Your task to perform on an android device: Search for good Italian restaurants Image 0: 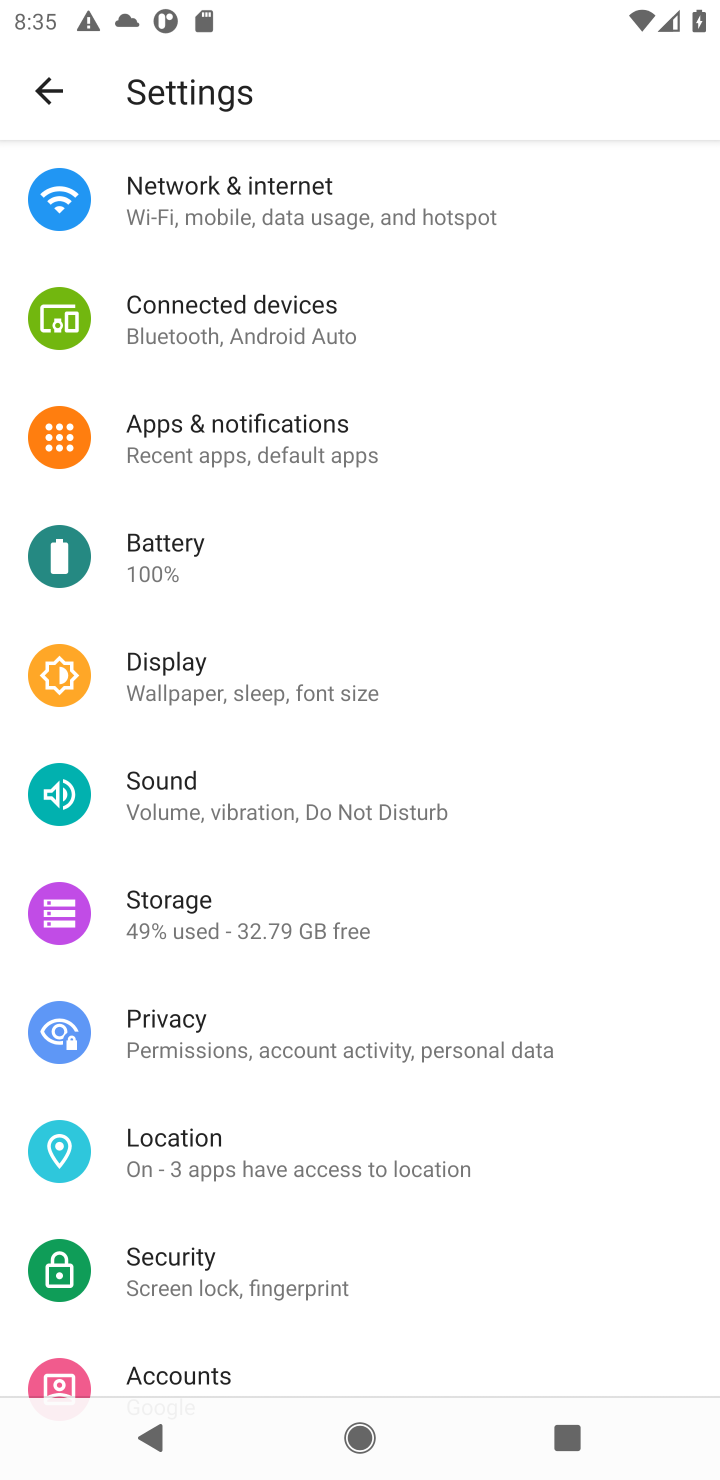
Step 0: press home button
Your task to perform on an android device: Search for good Italian restaurants Image 1: 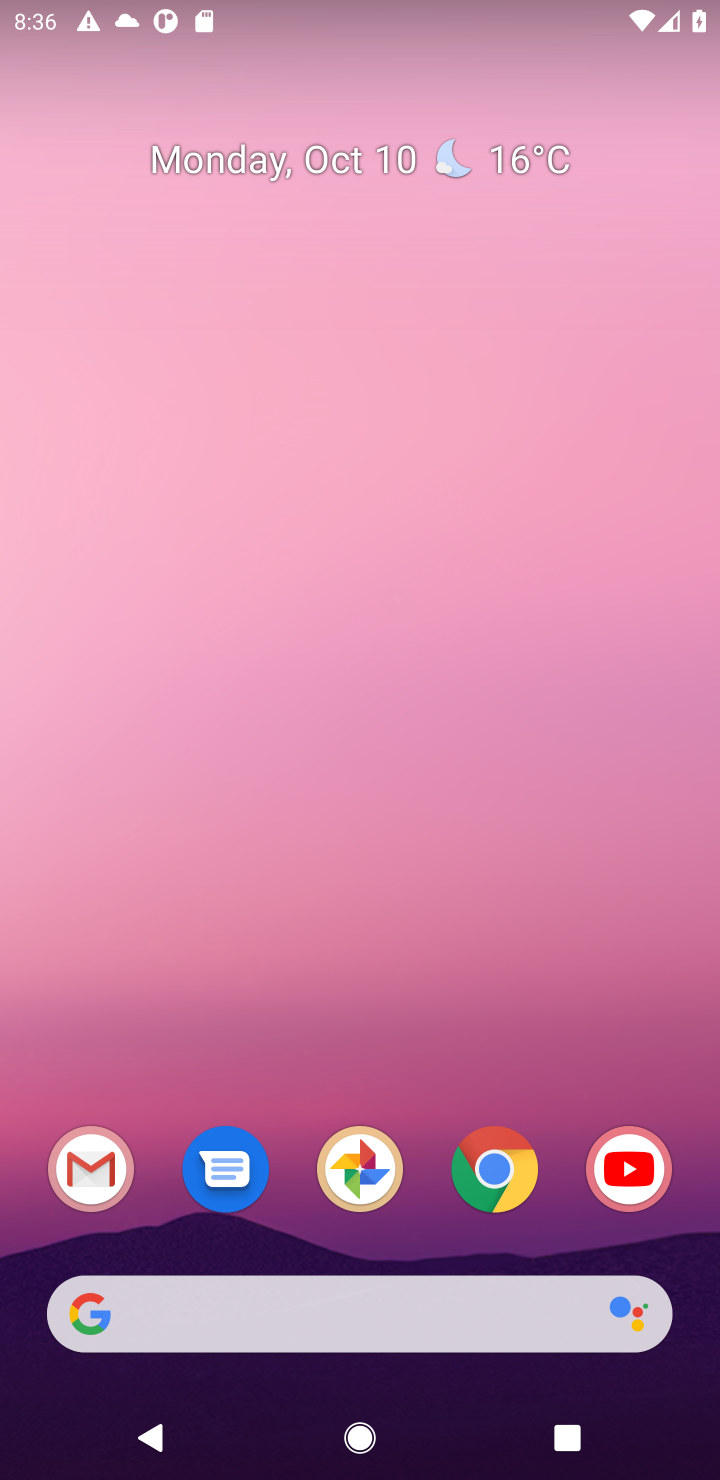
Step 1: click (500, 1173)
Your task to perform on an android device: Search for good Italian restaurants Image 2: 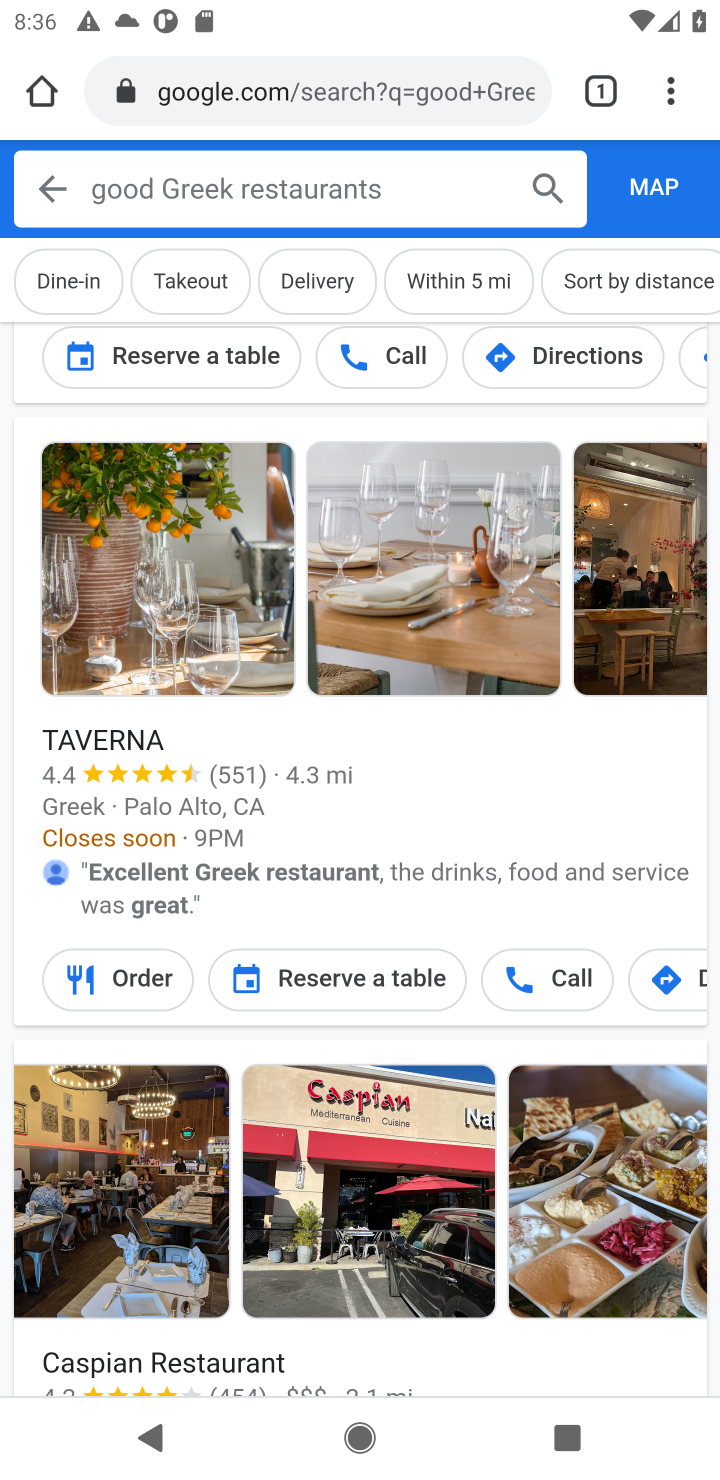
Step 2: click (272, 86)
Your task to perform on an android device: Search for good Italian restaurants Image 3: 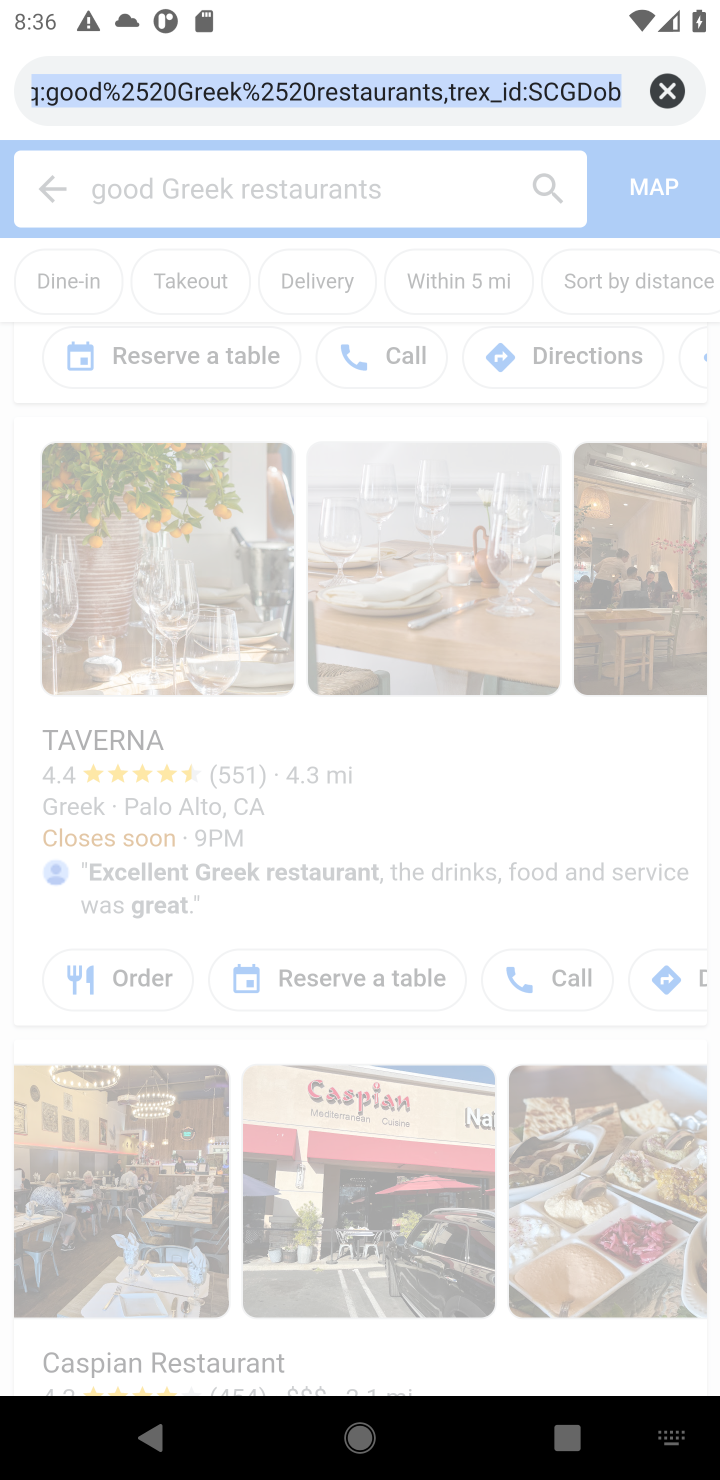
Step 3: type "good Italian restaurants"
Your task to perform on an android device: Search for good Italian restaurants Image 4: 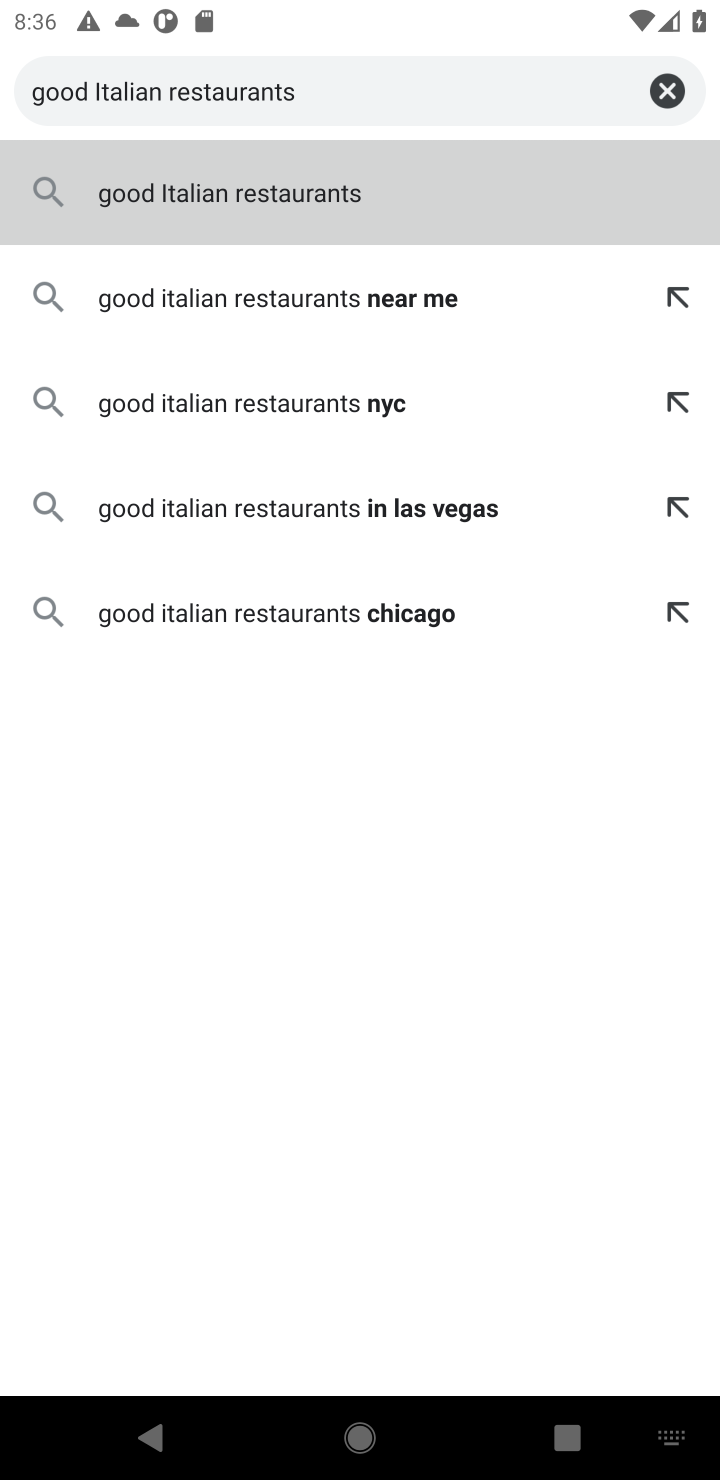
Step 4: press enter
Your task to perform on an android device: Search for good Italian restaurants Image 5: 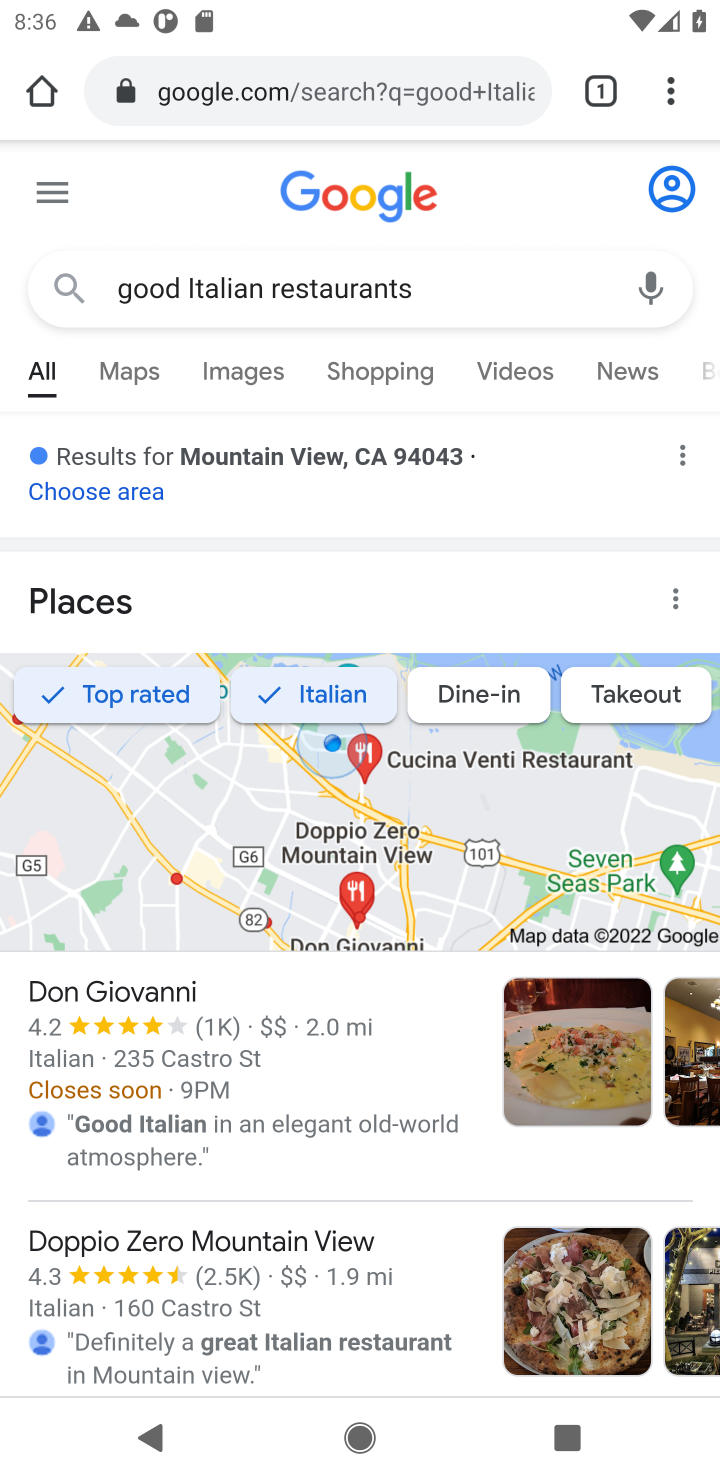
Step 5: drag from (343, 1131) to (146, 214)
Your task to perform on an android device: Search for good Italian restaurants Image 6: 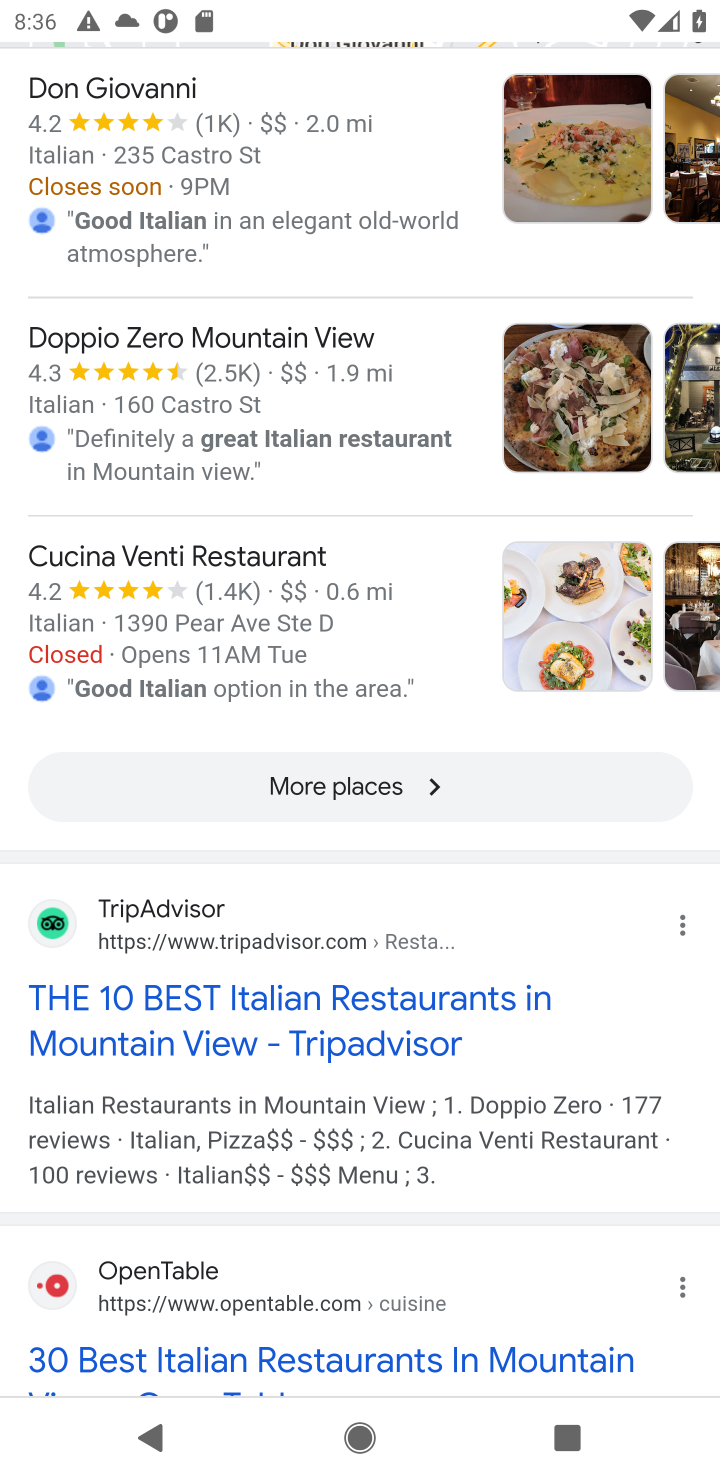
Step 6: click (311, 777)
Your task to perform on an android device: Search for good Italian restaurants Image 7: 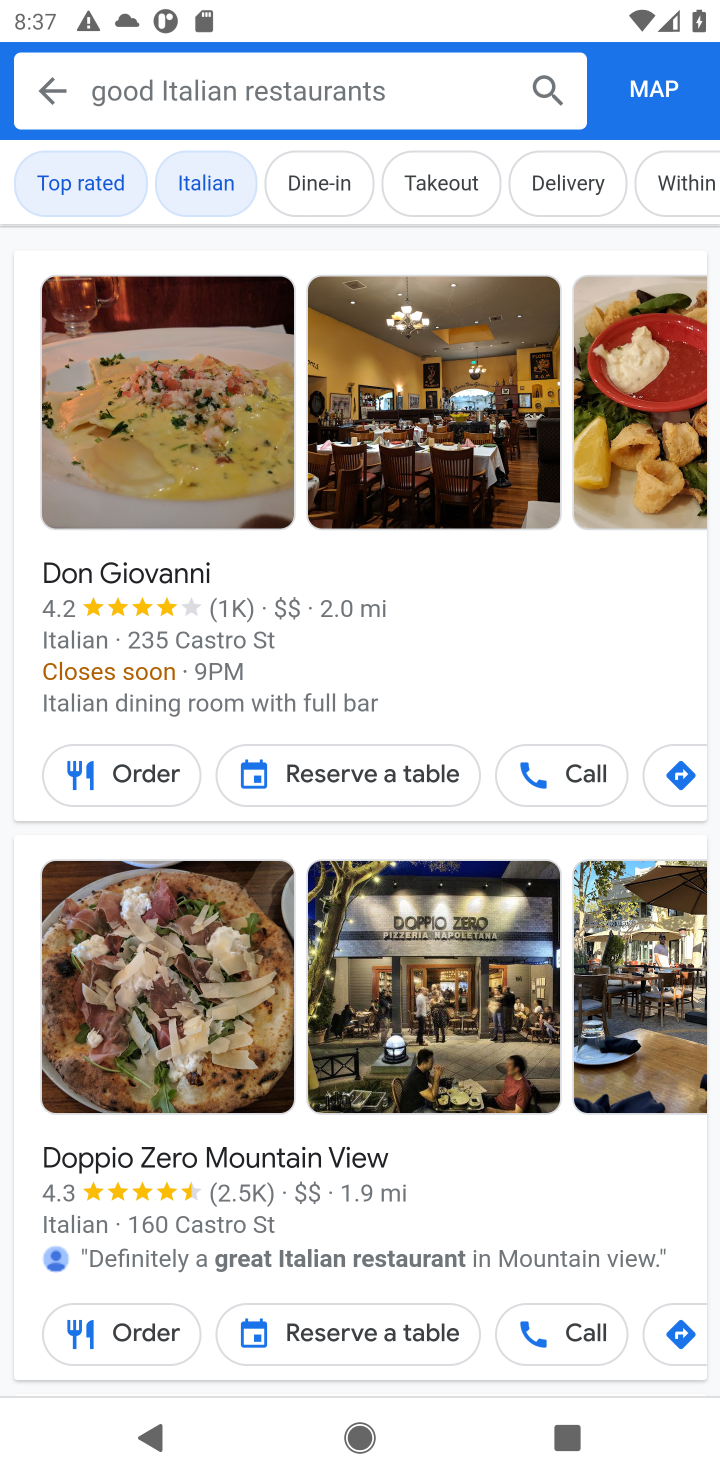
Step 7: task complete